Your task to perform on an android device: toggle wifi Image 0: 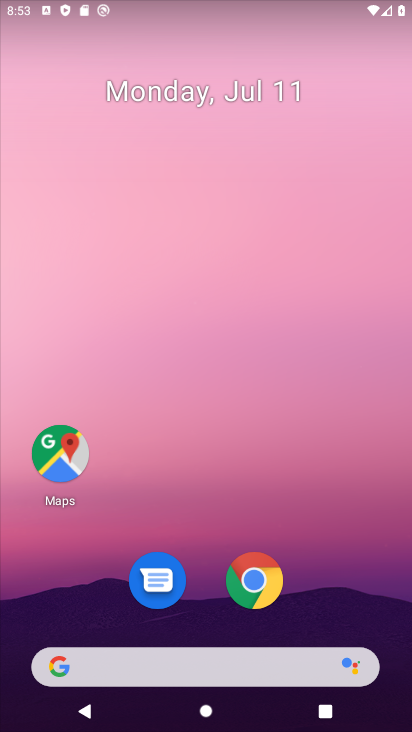
Step 0: drag from (329, 586) to (287, 68)
Your task to perform on an android device: toggle wifi Image 1: 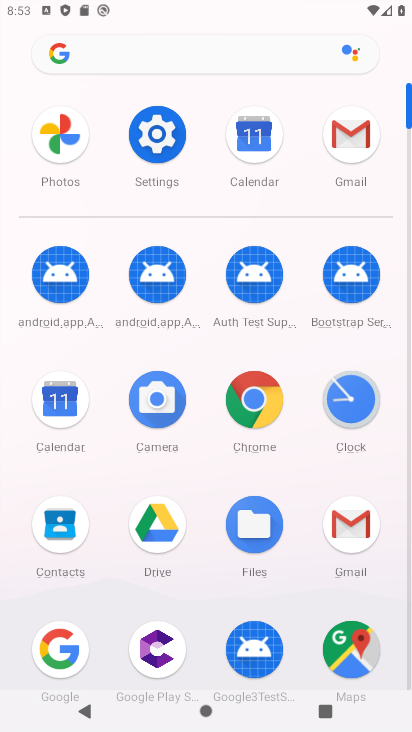
Step 1: click (170, 117)
Your task to perform on an android device: toggle wifi Image 2: 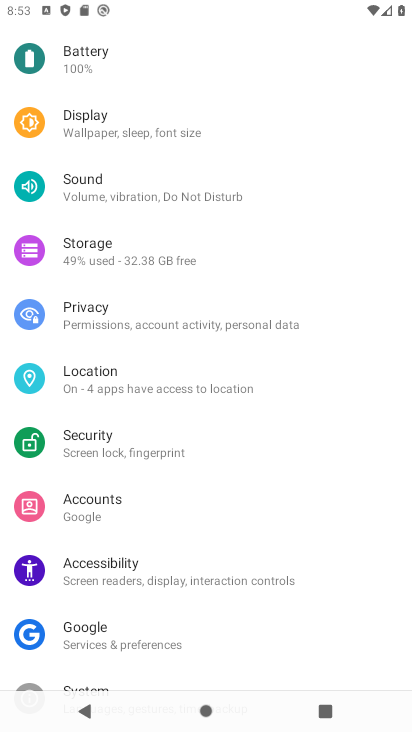
Step 2: drag from (221, 219) to (218, 513)
Your task to perform on an android device: toggle wifi Image 3: 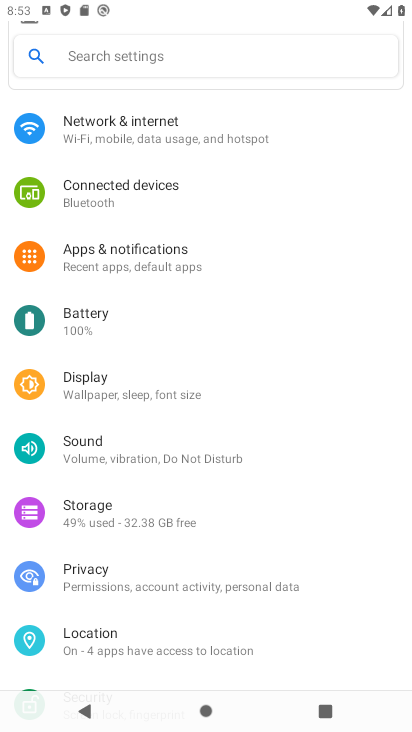
Step 3: click (194, 132)
Your task to perform on an android device: toggle wifi Image 4: 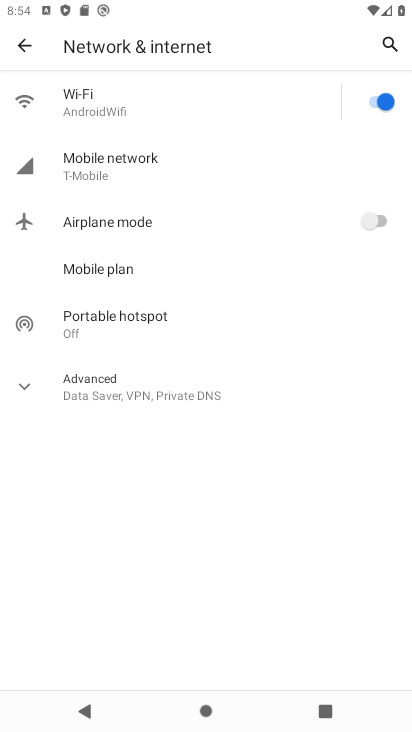
Step 4: click (380, 98)
Your task to perform on an android device: toggle wifi Image 5: 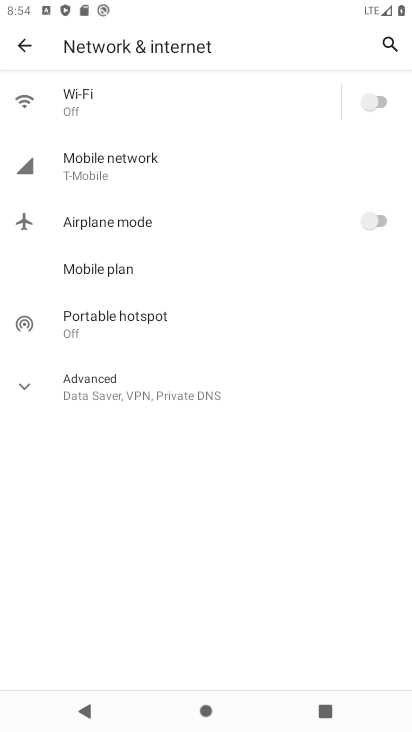
Step 5: task complete